Your task to perform on an android device: add a contact Image 0: 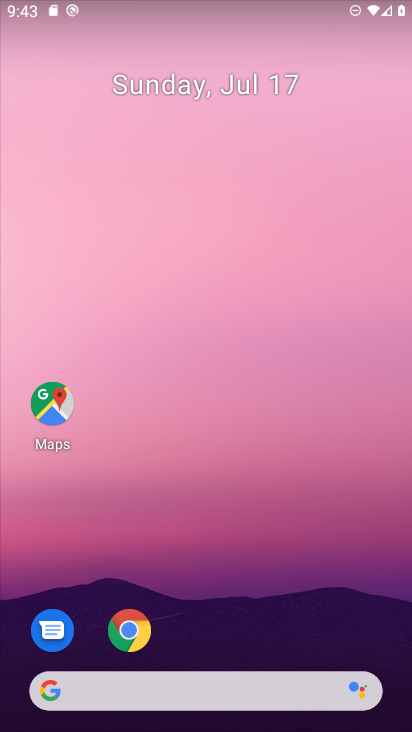
Step 0: drag from (217, 627) to (263, 48)
Your task to perform on an android device: add a contact Image 1: 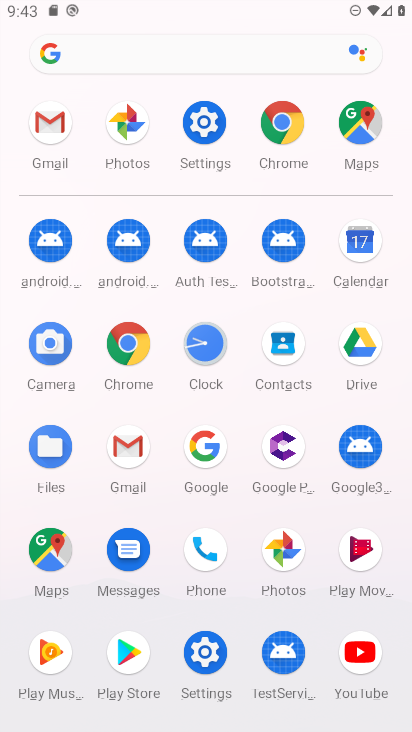
Step 1: click (202, 556)
Your task to perform on an android device: add a contact Image 2: 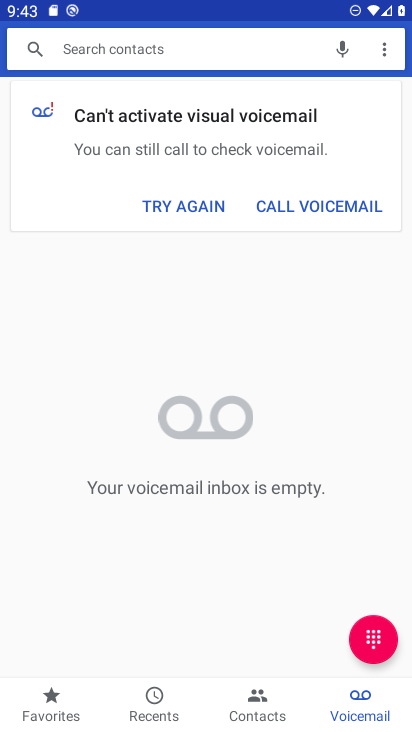
Step 2: click (139, 699)
Your task to perform on an android device: add a contact Image 3: 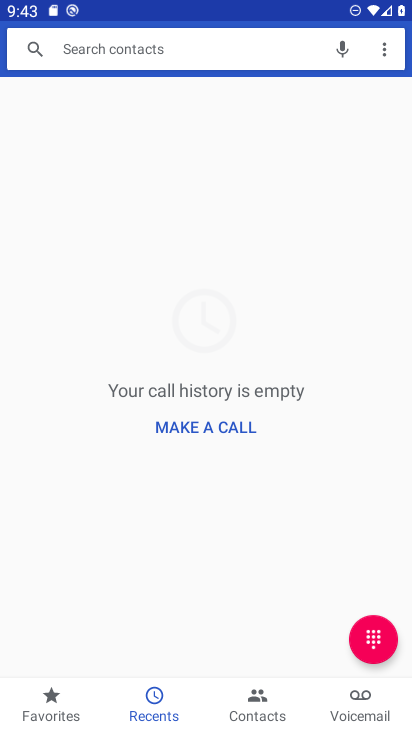
Step 3: click (269, 714)
Your task to perform on an android device: add a contact Image 4: 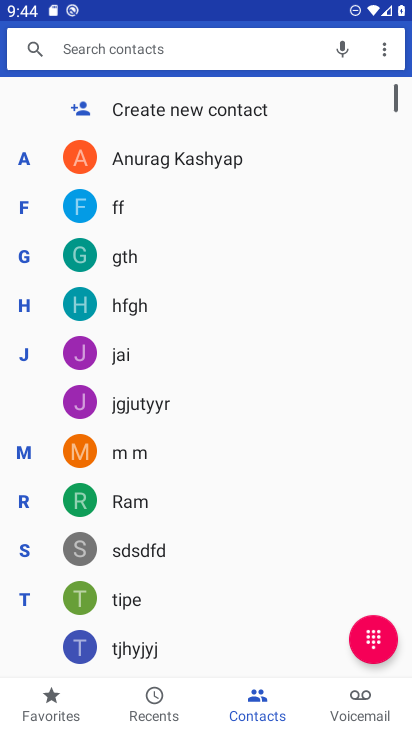
Step 4: click (138, 105)
Your task to perform on an android device: add a contact Image 5: 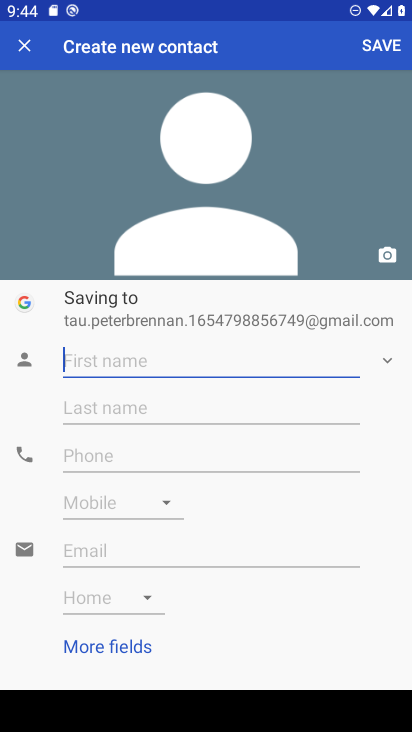
Step 5: click (166, 348)
Your task to perform on an android device: add a contact Image 6: 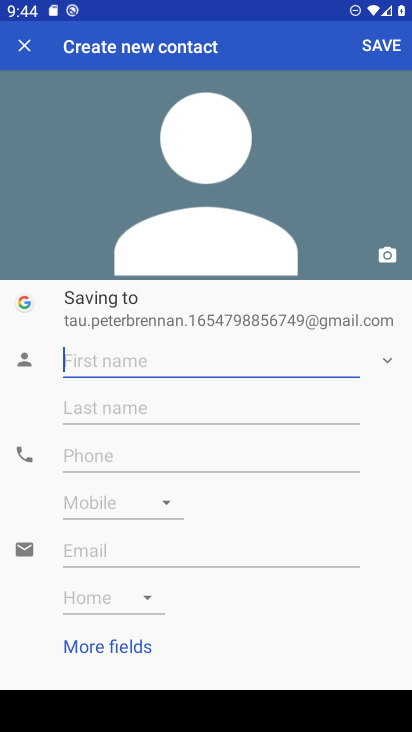
Step 6: type "fffffffffffdddddddddddd"
Your task to perform on an android device: add a contact Image 7: 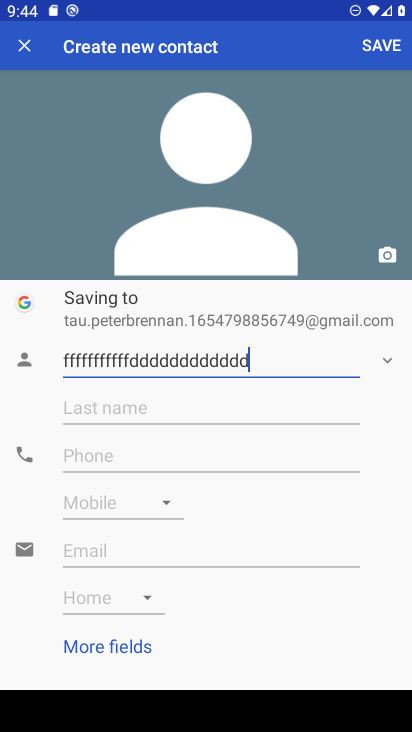
Step 7: click (169, 452)
Your task to perform on an android device: add a contact Image 8: 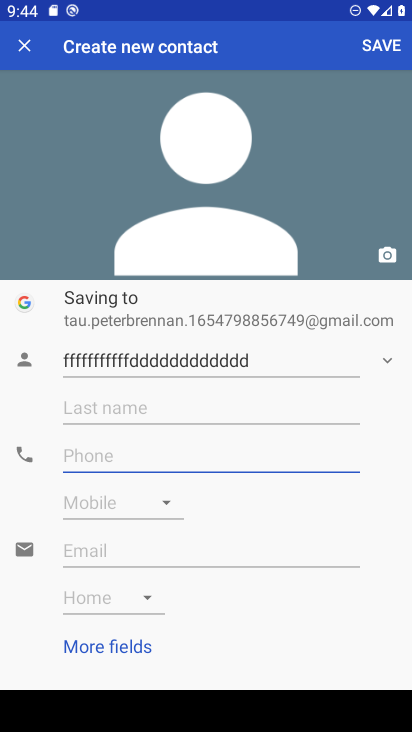
Step 8: type "33456789 "
Your task to perform on an android device: add a contact Image 9: 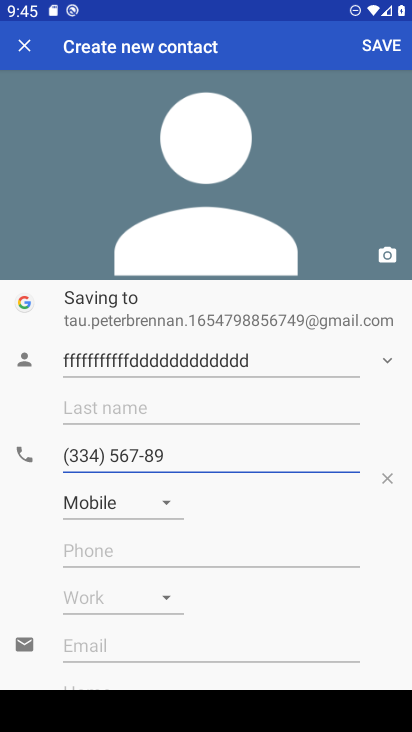
Step 9: click (389, 56)
Your task to perform on an android device: add a contact Image 10: 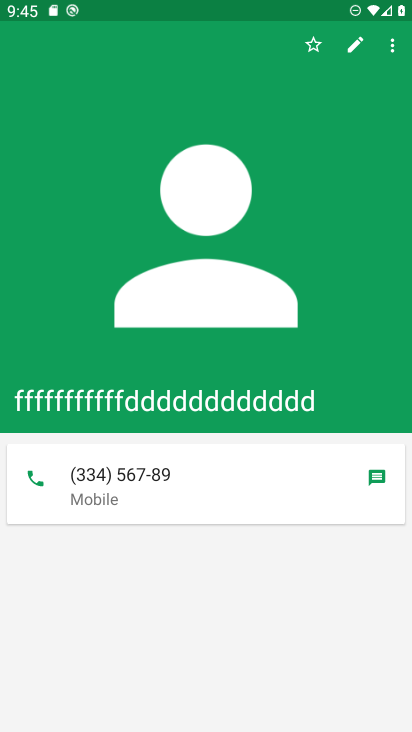
Step 10: task complete